Your task to perform on an android device: Look up the best rated pressure washer on Home Depot. Image 0: 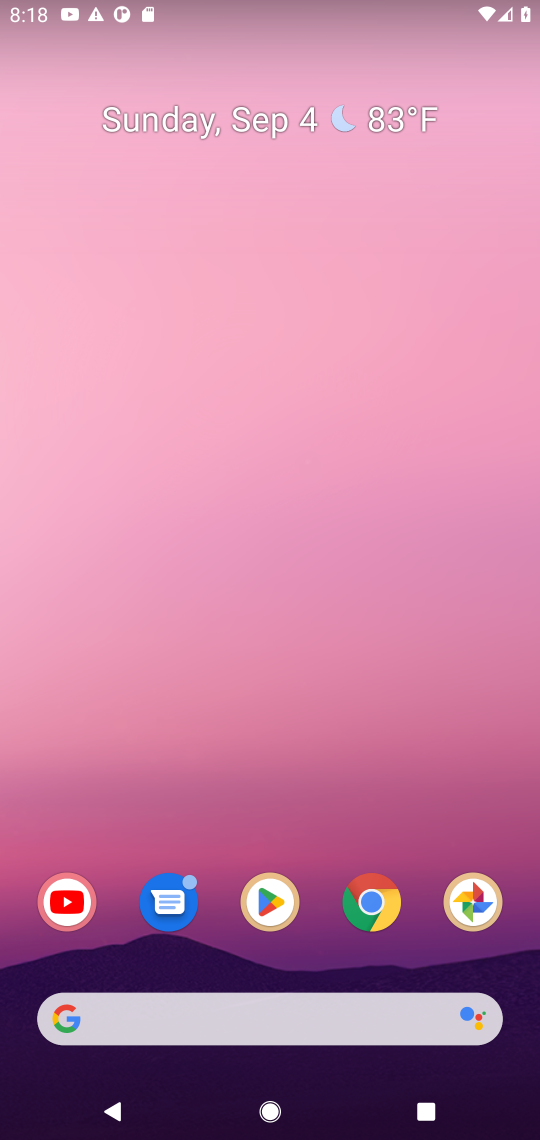
Step 0: click (352, 901)
Your task to perform on an android device: Look up the best rated pressure washer on Home Depot. Image 1: 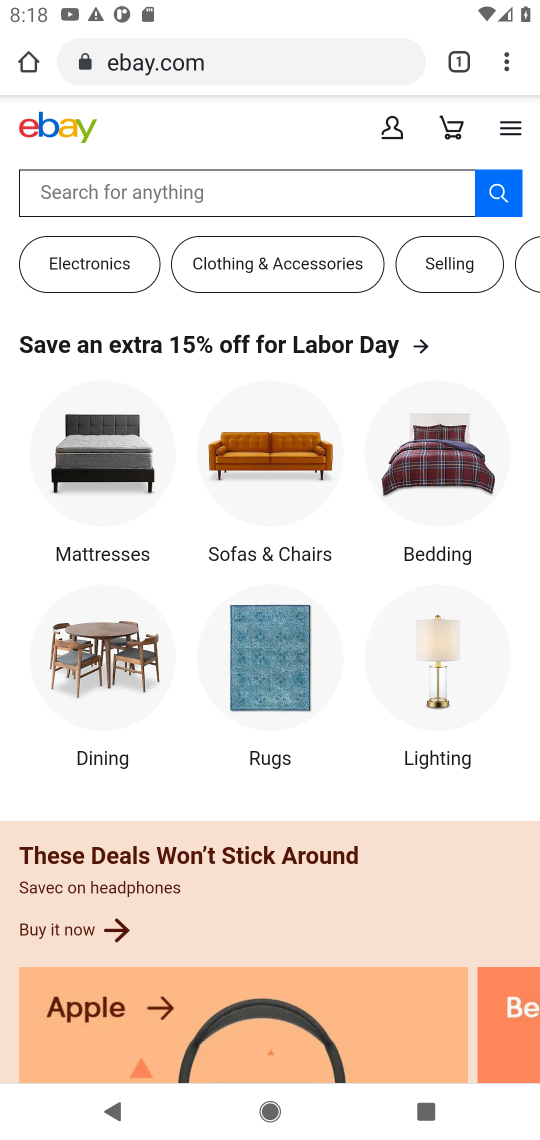
Step 1: click (63, 743)
Your task to perform on an android device: Look up the best rated pressure washer on Home Depot. Image 2: 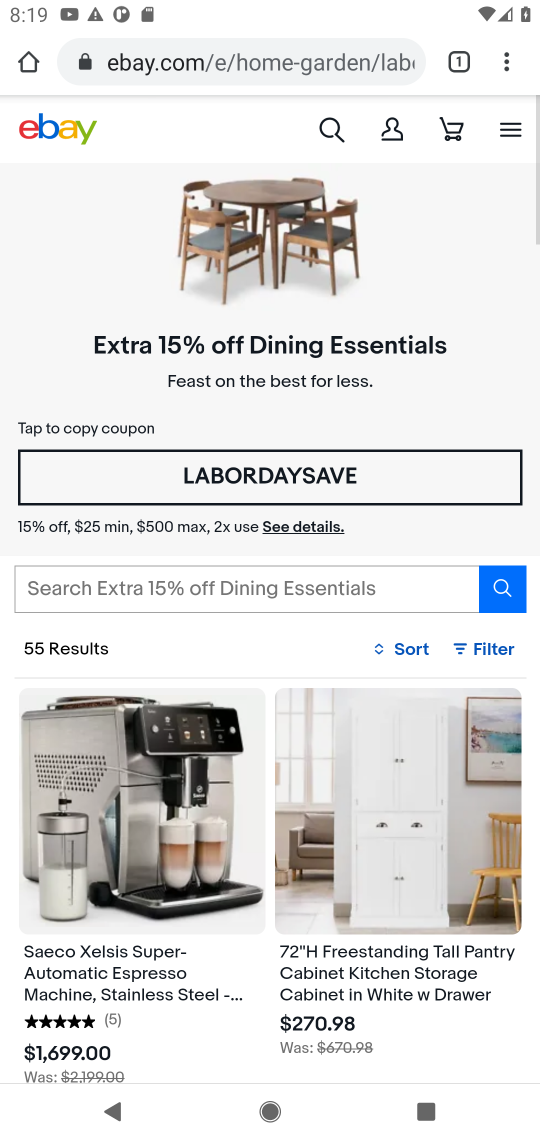
Step 2: task complete